Your task to perform on an android device: open app "Spotify" Image 0: 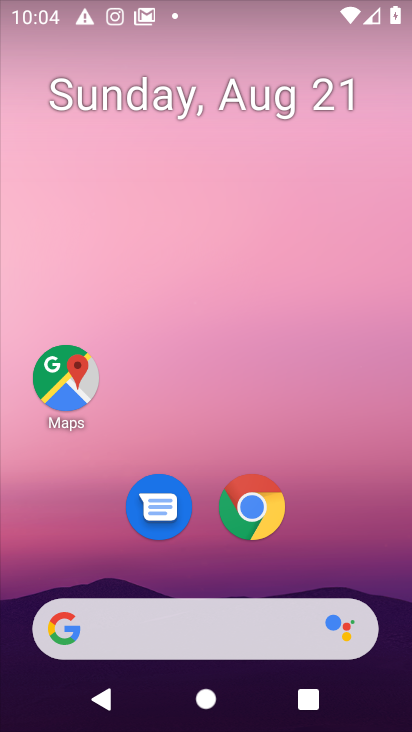
Step 0: drag from (203, 549) to (189, 197)
Your task to perform on an android device: open app "Spotify" Image 1: 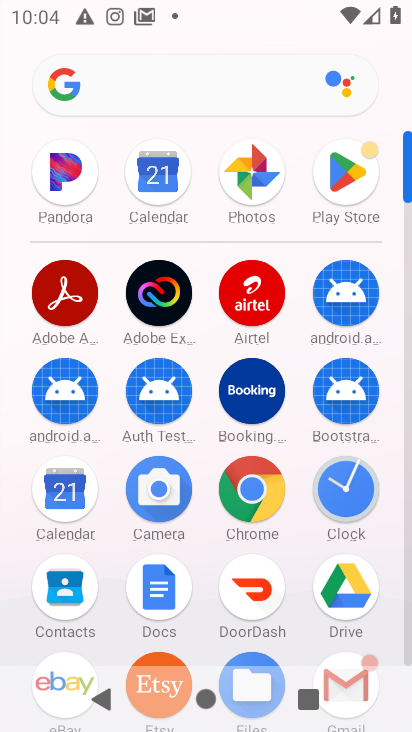
Step 1: click (330, 166)
Your task to perform on an android device: open app "Spotify" Image 2: 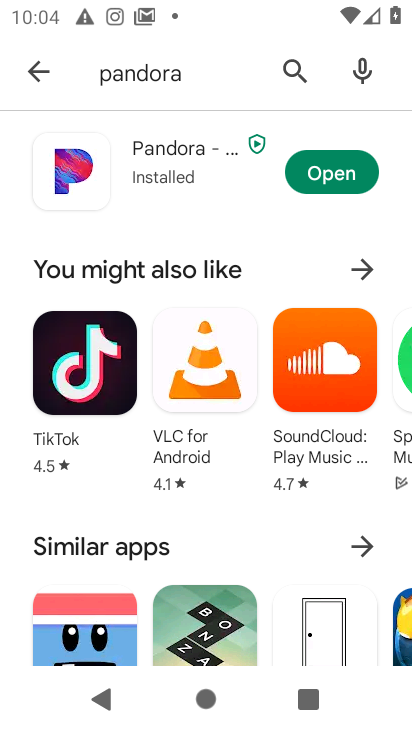
Step 2: click (33, 63)
Your task to perform on an android device: open app "Spotify" Image 3: 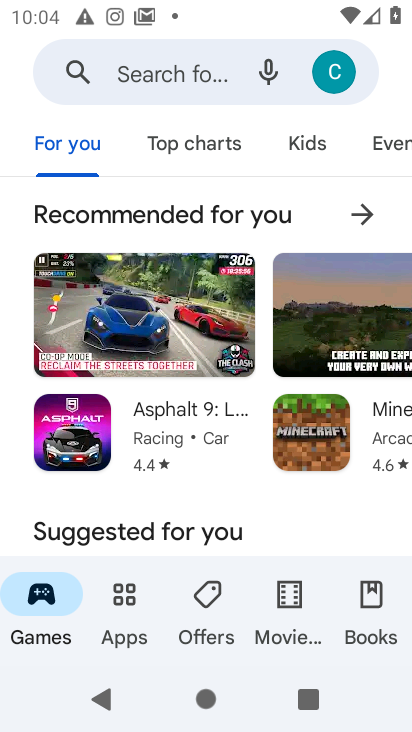
Step 3: click (90, 74)
Your task to perform on an android device: open app "Spotify" Image 4: 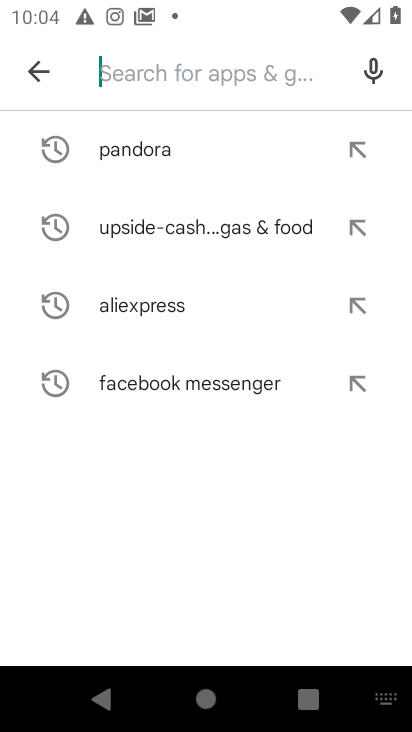
Step 4: type "Spotify"
Your task to perform on an android device: open app "Spotify" Image 5: 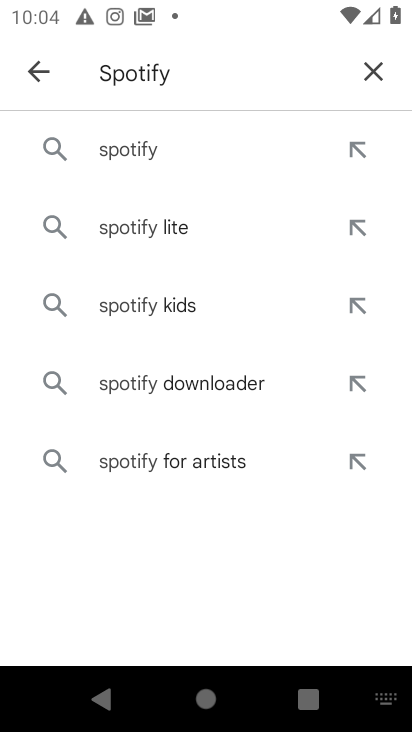
Step 5: click (111, 153)
Your task to perform on an android device: open app "Spotify" Image 6: 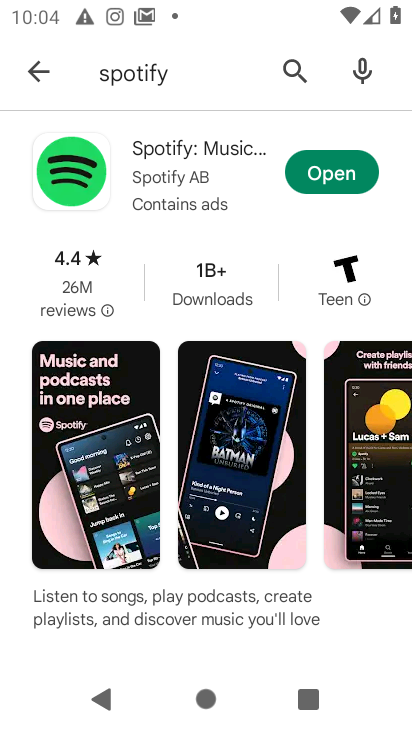
Step 6: click (346, 174)
Your task to perform on an android device: open app "Spotify" Image 7: 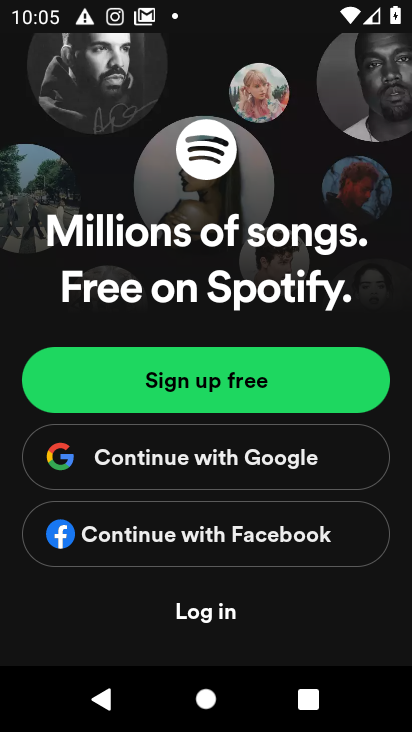
Step 7: task complete